Your task to perform on an android device: Empty the shopping cart on costco.com. Image 0: 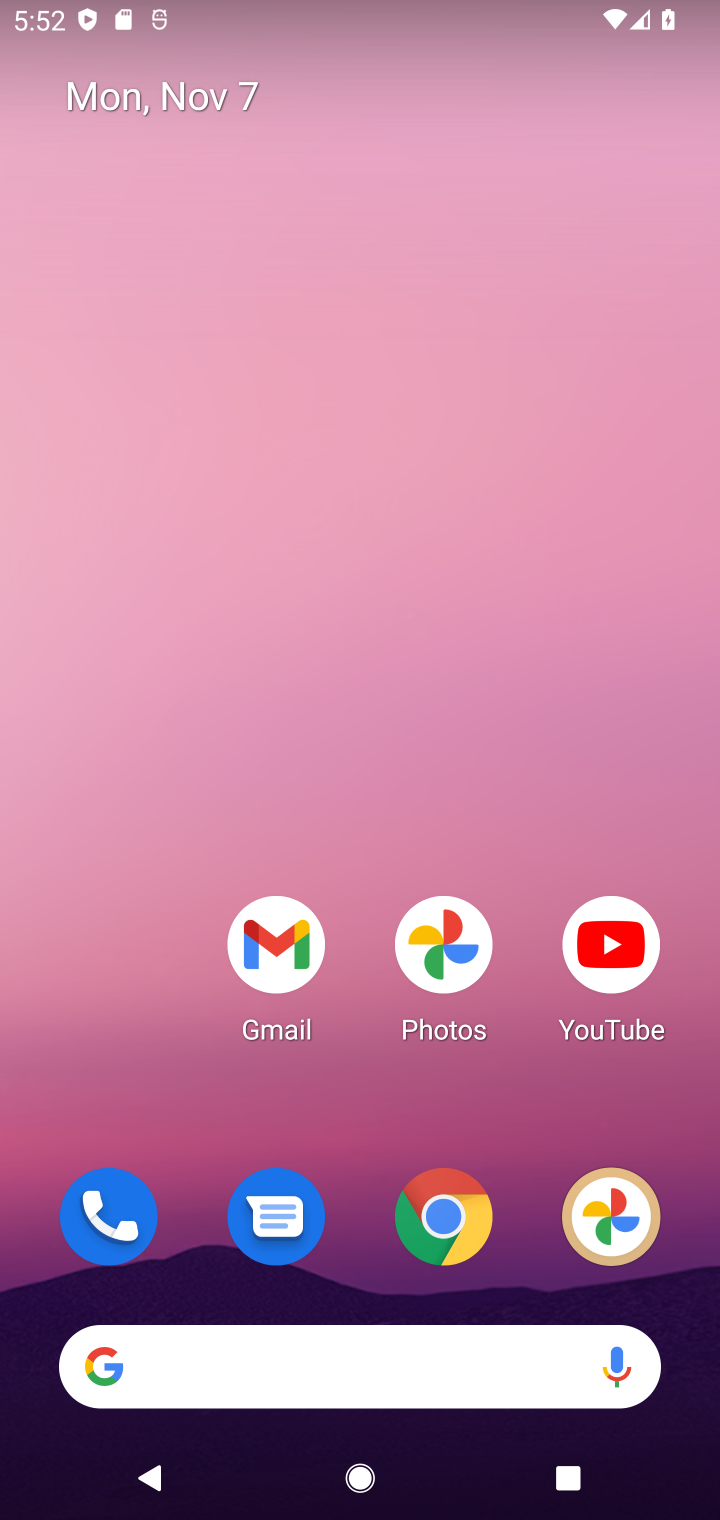
Step 0: drag from (327, 1088) to (329, 135)
Your task to perform on an android device: Empty the shopping cart on costco.com. Image 1: 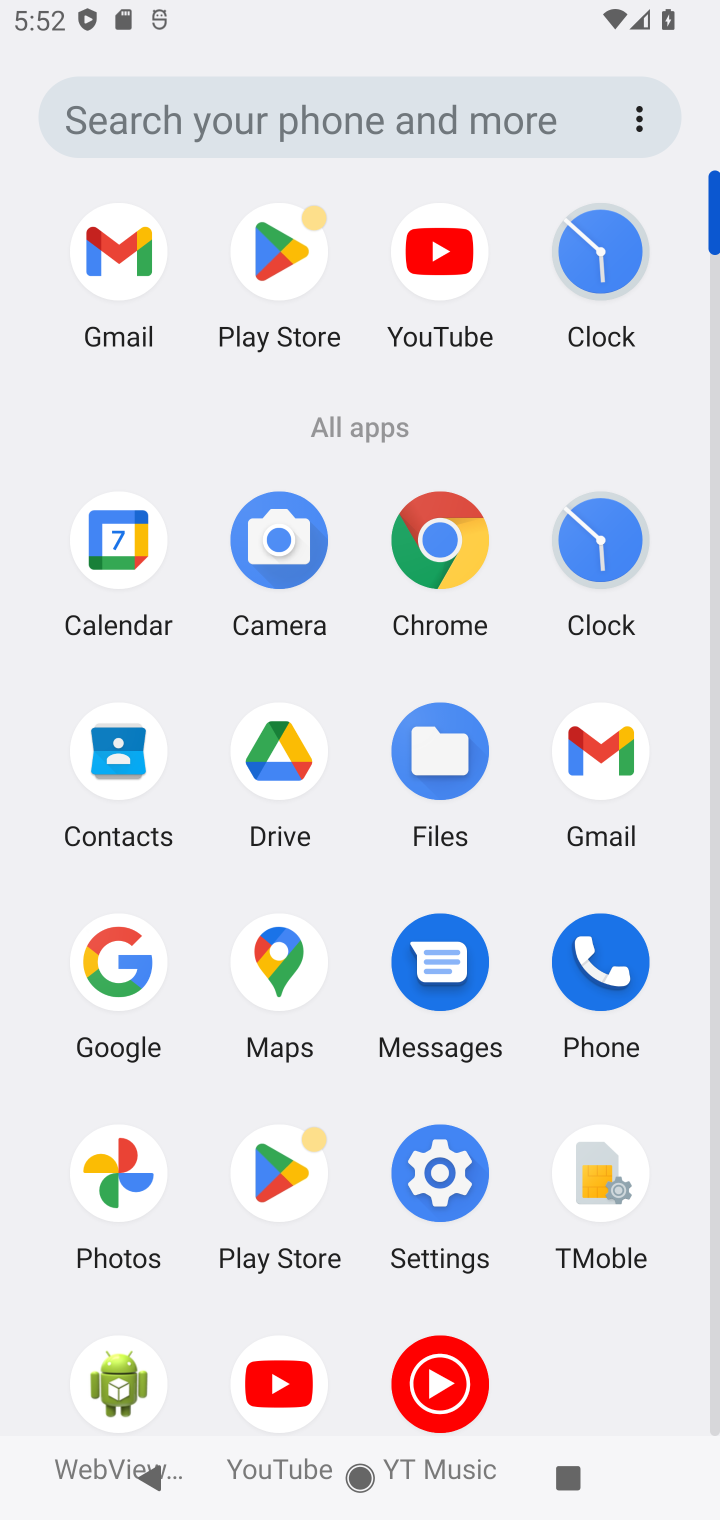
Step 1: click (453, 541)
Your task to perform on an android device: Empty the shopping cart on costco.com. Image 2: 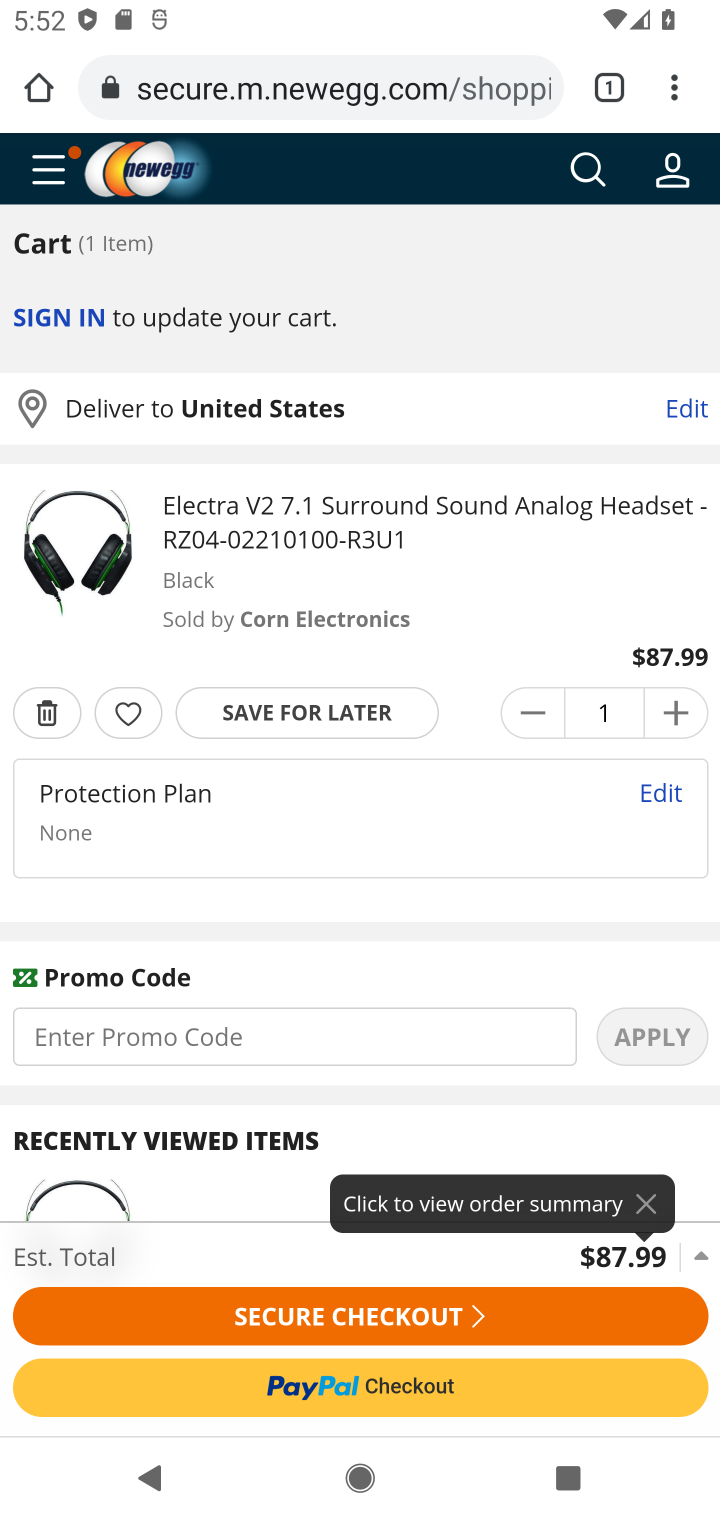
Step 2: click (273, 91)
Your task to perform on an android device: Empty the shopping cart on costco.com. Image 3: 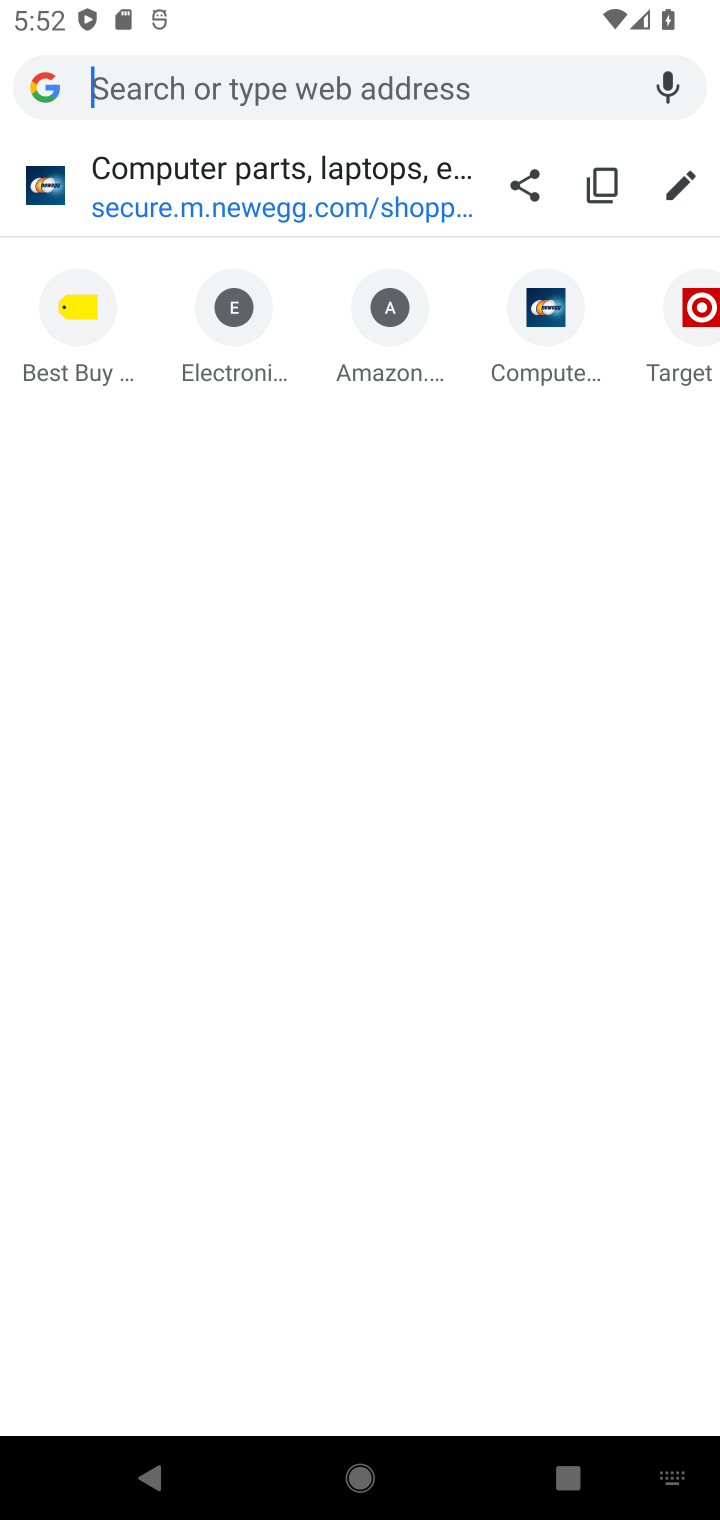
Step 3: type "costco.com"
Your task to perform on an android device: Empty the shopping cart on costco.com. Image 4: 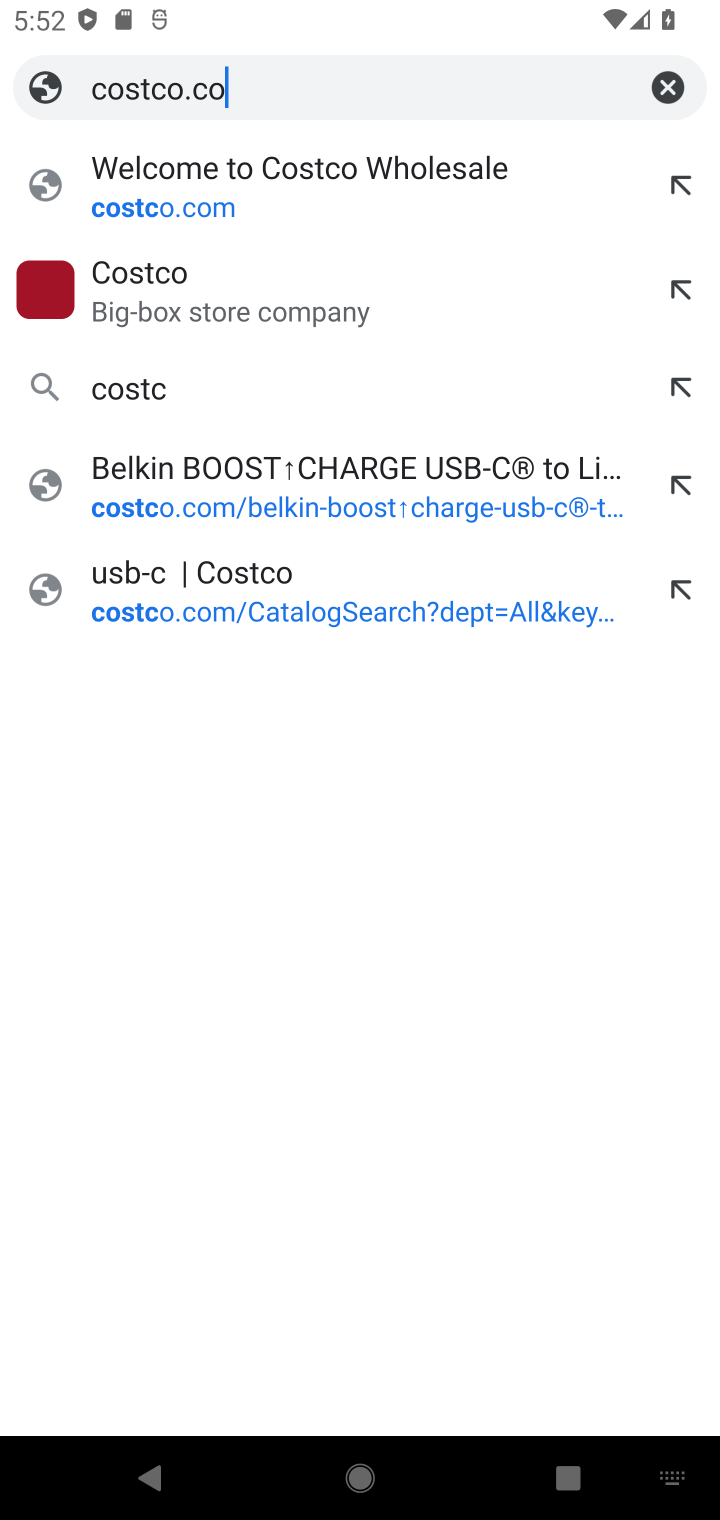
Step 4: press enter
Your task to perform on an android device: Empty the shopping cart on costco.com. Image 5: 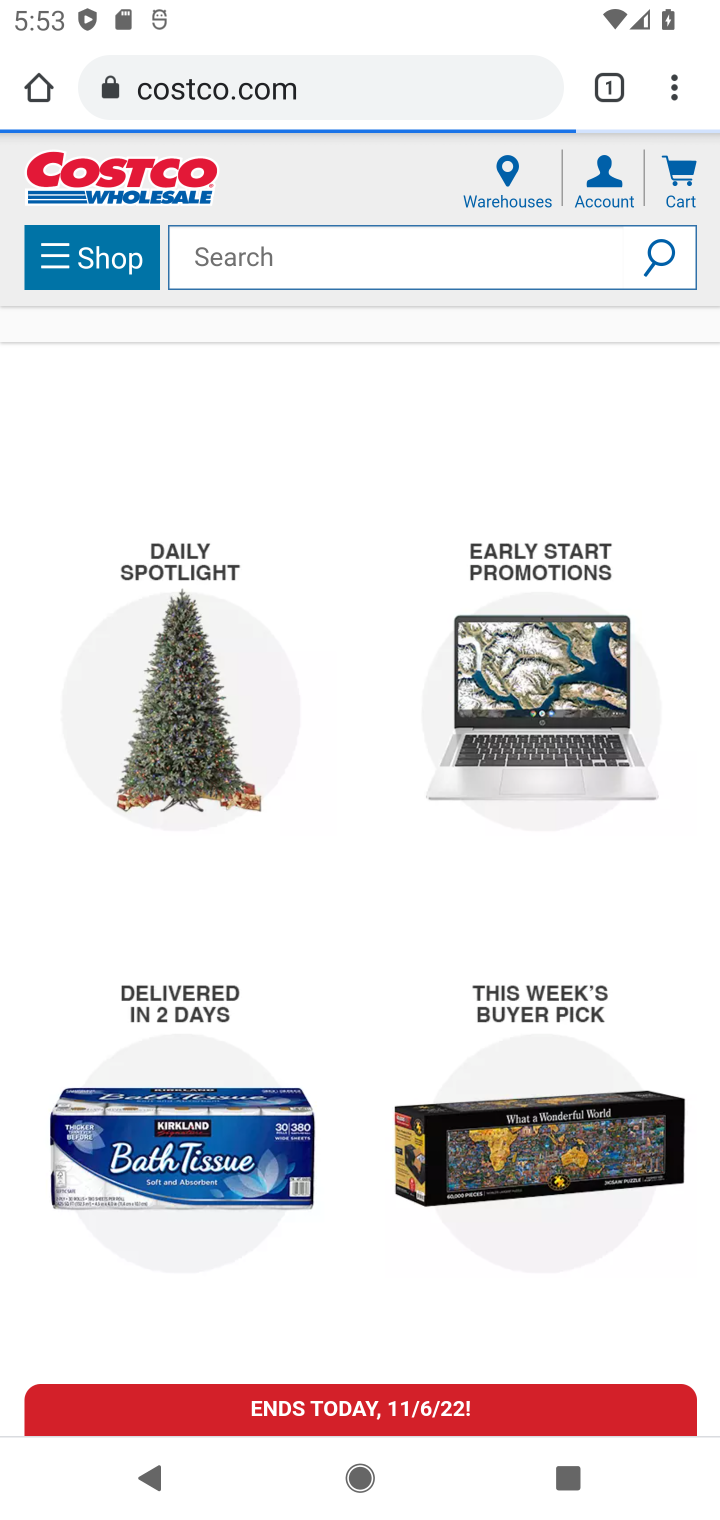
Step 5: click (678, 172)
Your task to perform on an android device: Empty the shopping cart on costco.com. Image 6: 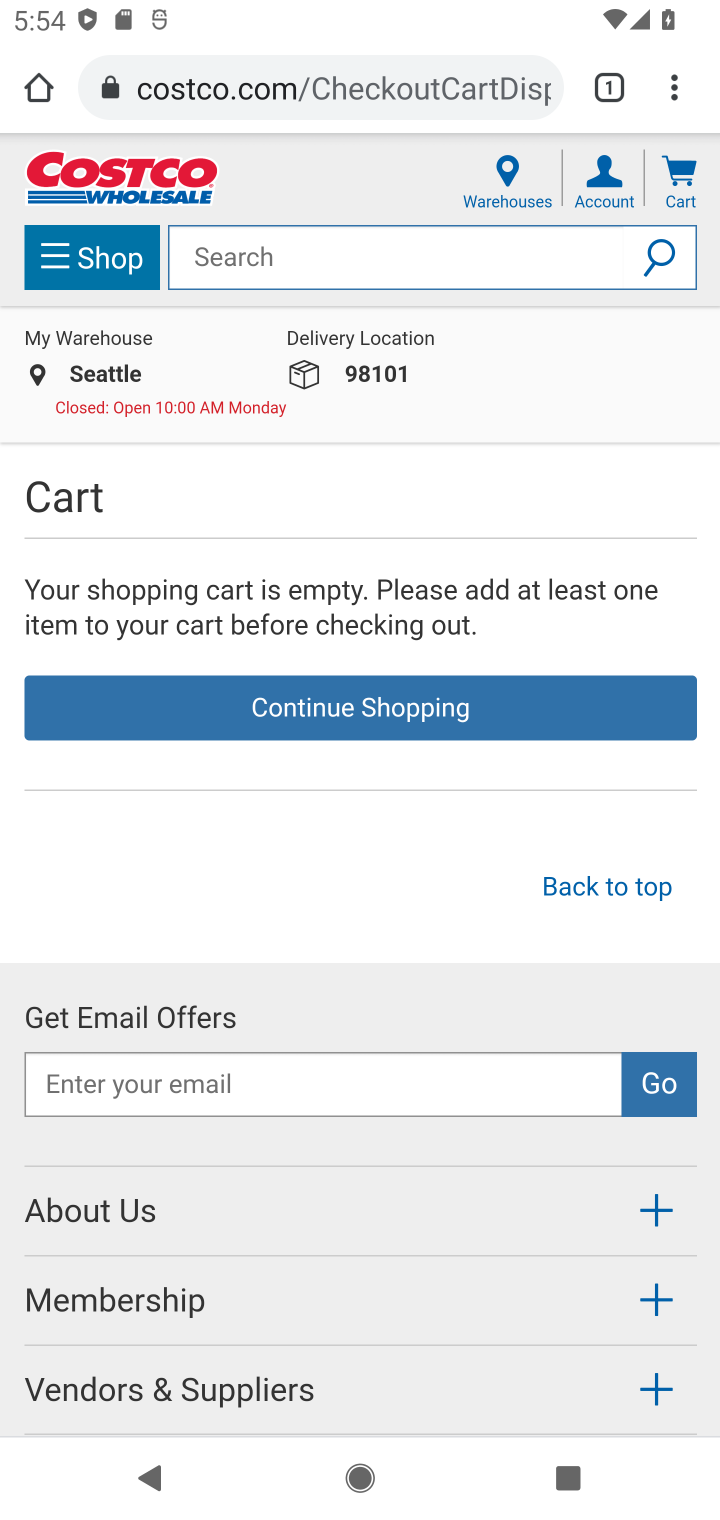
Step 6: task complete